Your task to perform on an android device: check battery use Image 0: 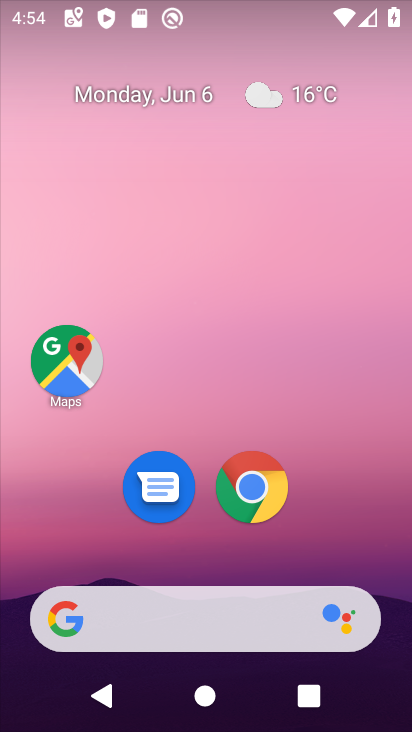
Step 0: drag from (335, 520) to (295, 4)
Your task to perform on an android device: check battery use Image 1: 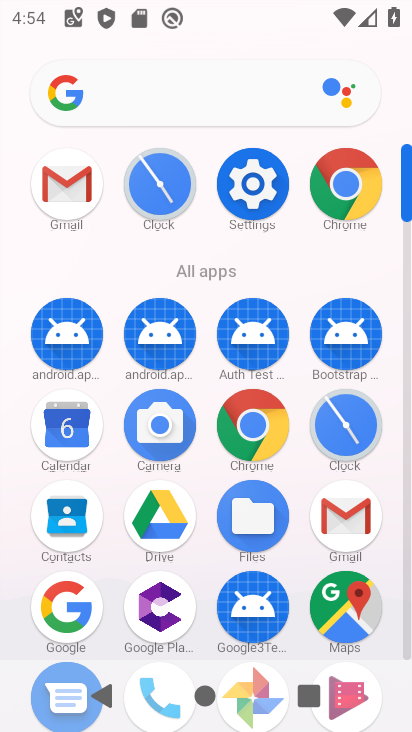
Step 1: click (252, 186)
Your task to perform on an android device: check battery use Image 2: 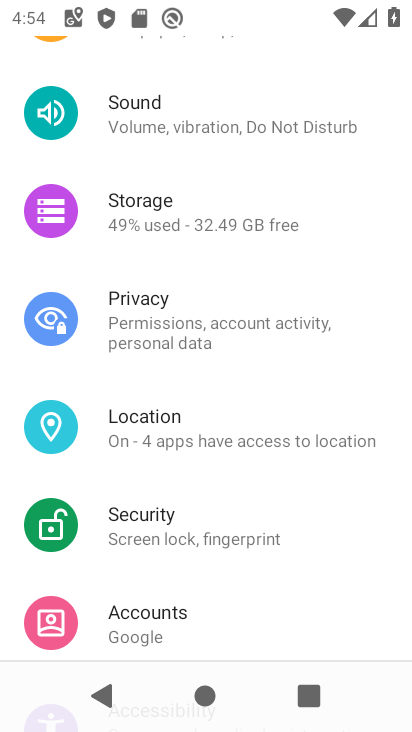
Step 2: drag from (235, 278) to (237, 589)
Your task to perform on an android device: check battery use Image 3: 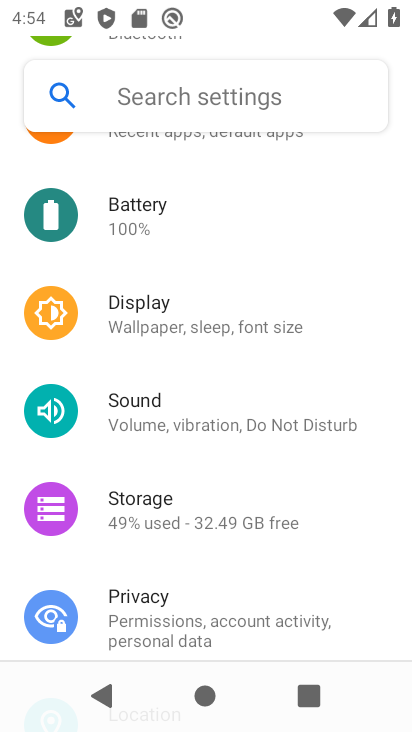
Step 3: click (219, 238)
Your task to perform on an android device: check battery use Image 4: 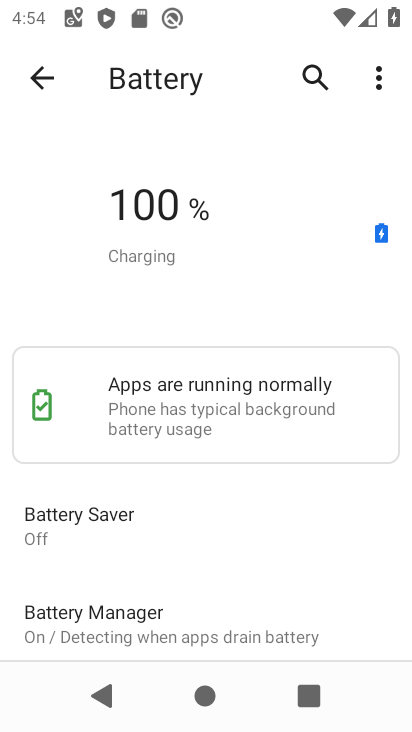
Step 4: click (377, 83)
Your task to perform on an android device: check battery use Image 5: 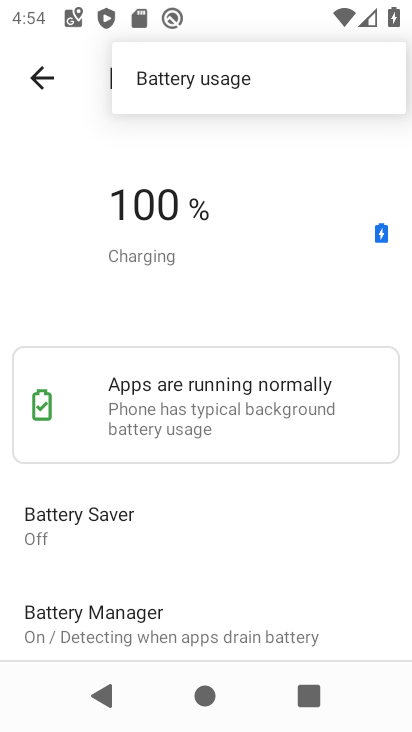
Step 5: click (243, 76)
Your task to perform on an android device: check battery use Image 6: 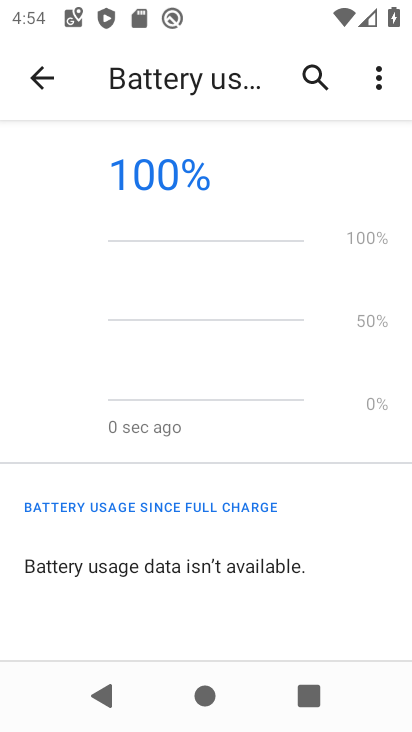
Step 6: task complete